Your task to perform on an android device: turn off notifications settings in the gmail app Image 0: 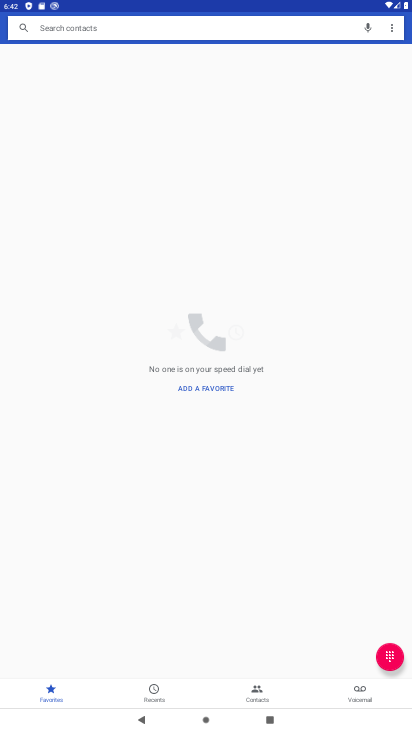
Step 0: press home button
Your task to perform on an android device: turn off notifications settings in the gmail app Image 1: 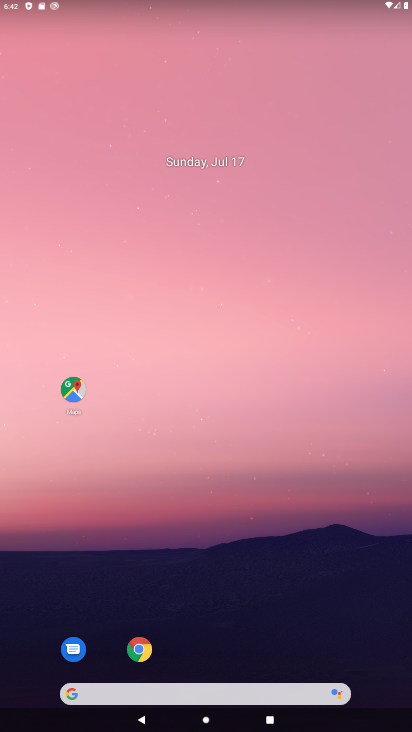
Step 1: drag from (236, 598) to (225, 256)
Your task to perform on an android device: turn off notifications settings in the gmail app Image 2: 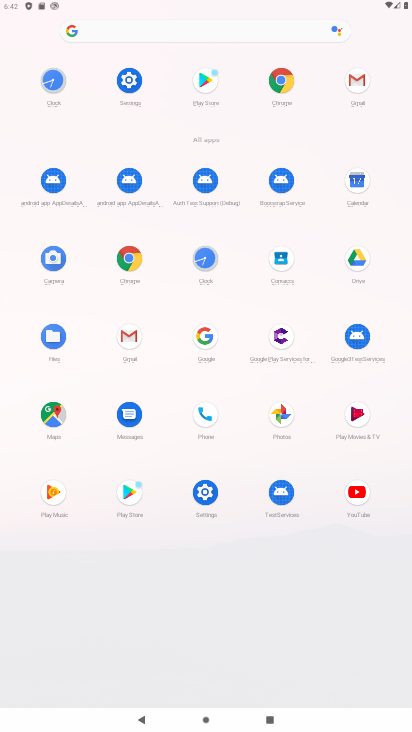
Step 2: click (360, 82)
Your task to perform on an android device: turn off notifications settings in the gmail app Image 3: 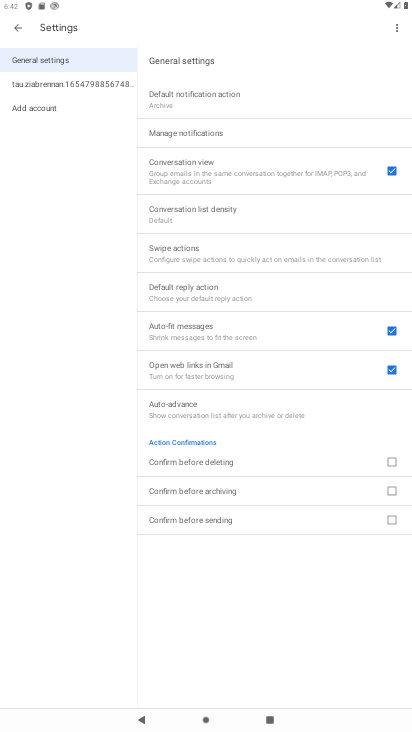
Step 3: click (207, 133)
Your task to perform on an android device: turn off notifications settings in the gmail app Image 4: 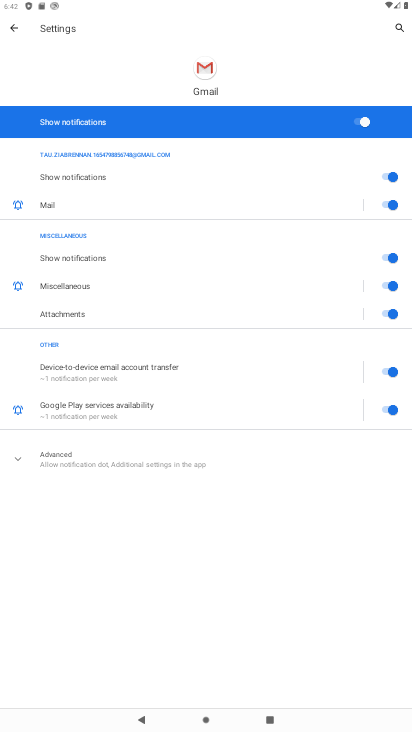
Step 4: click (357, 118)
Your task to perform on an android device: turn off notifications settings in the gmail app Image 5: 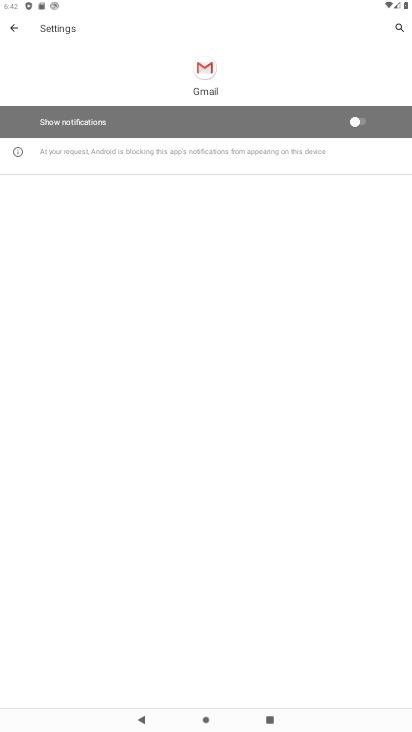
Step 5: task complete